Your task to perform on an android device: Search for vegetarian restaurants on Maps Image 0: 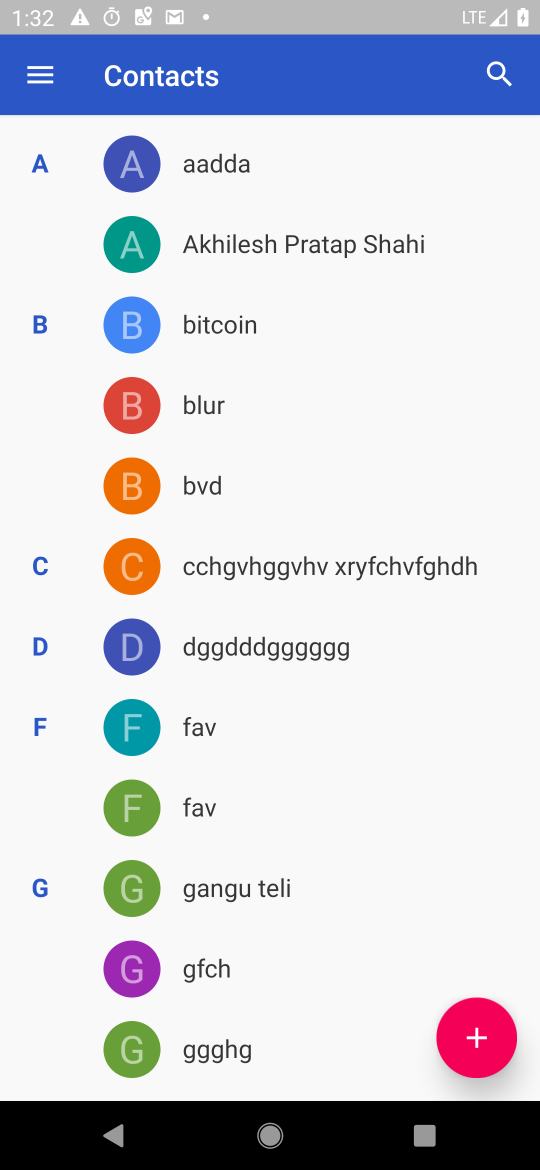
Step 0: press home button
Your task to perform on an android device: Search for vegetarian restaurants on Maps Image 1: 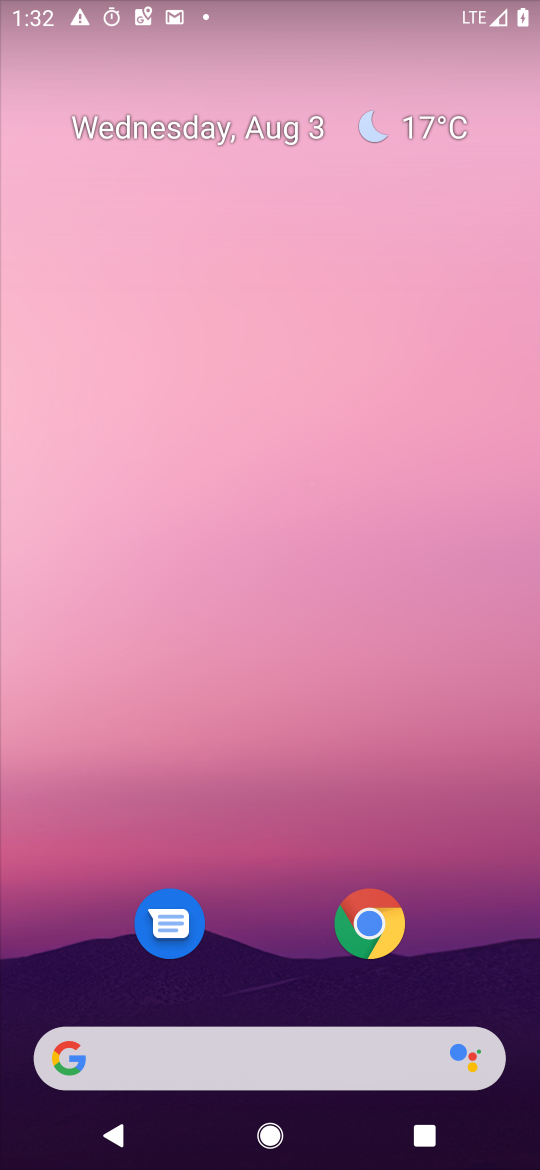
Step 1: drag from (263, 978) to (275, 445)
Your task to perform on an android device: Search for vegetarian restaurants on Maps Image 2: 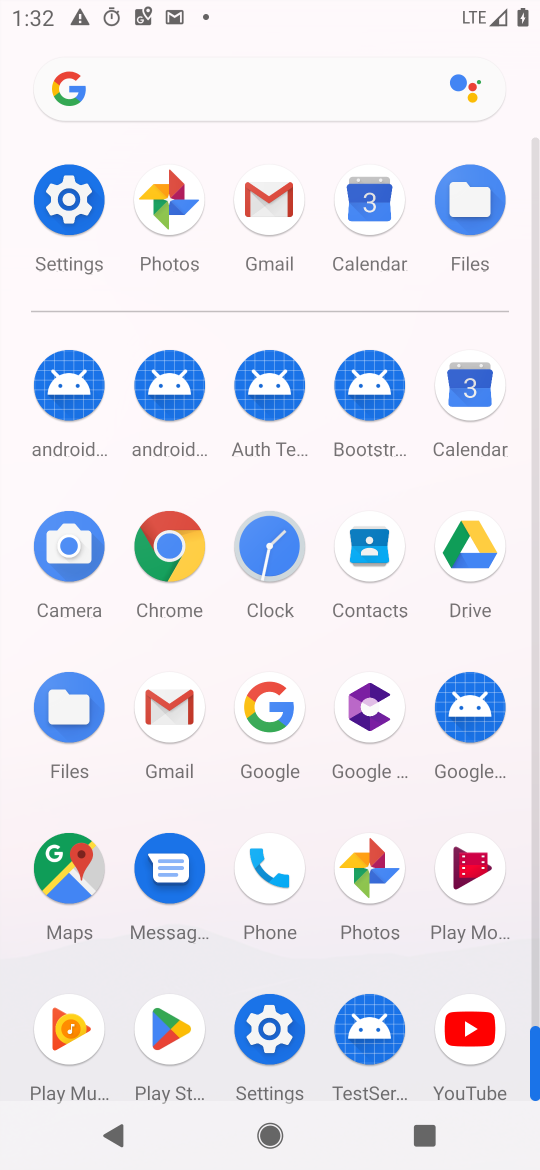
Step 2: click (89, 855)
Your task to perform on an android device: Search for vegetarian restaurants on Maps Image 3: 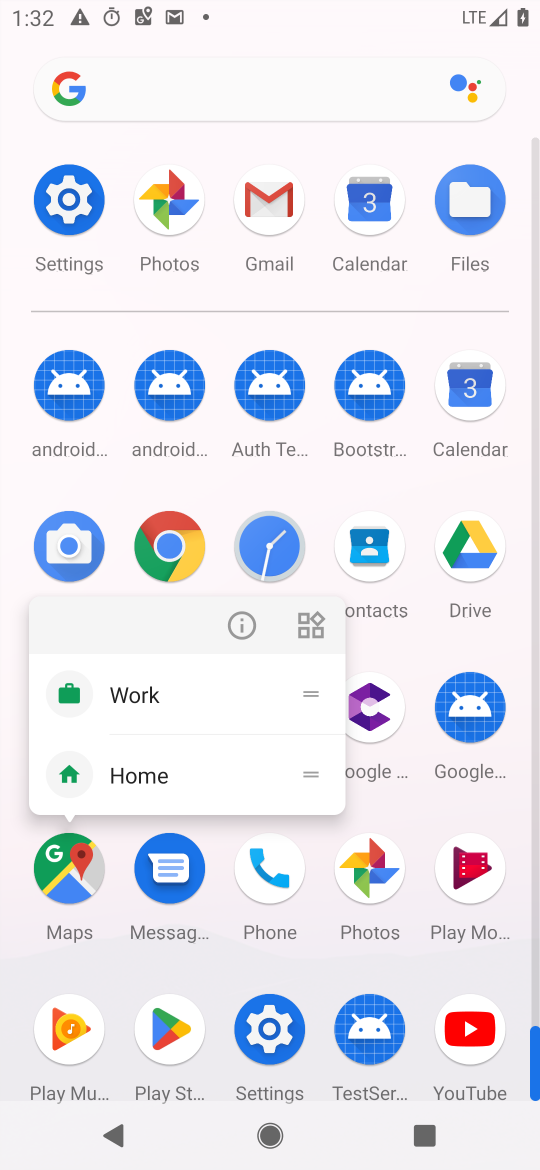
Step 3: click (226, 624)
Your task to perform on an android device: Search for vegetarian restaurants on Maps Image 4: 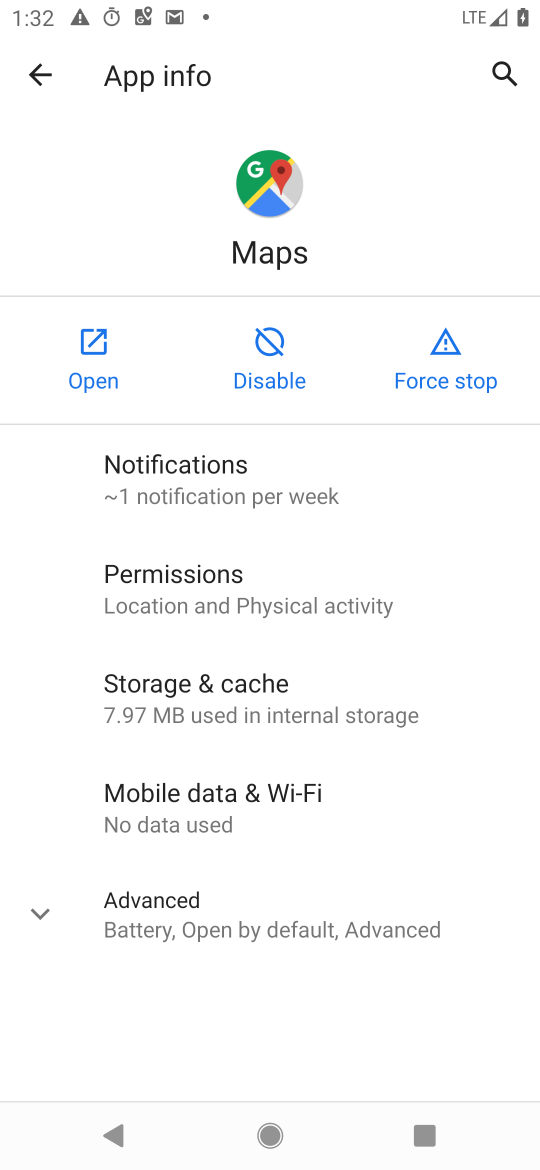
Step 4: click (119, 326)
Your task to perform on an android device: Search for vegetarian restaurants on Maps Image 5: 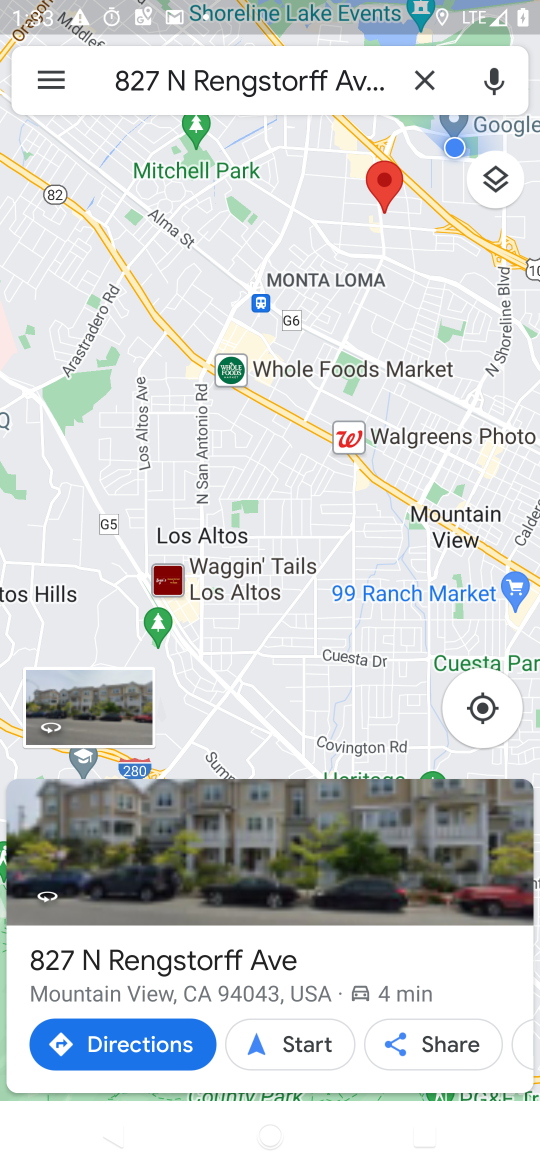
Step 5: click (417, 87)
Your task to perform on an android device: Search for vegetarian restaurants on Maps Image 6: 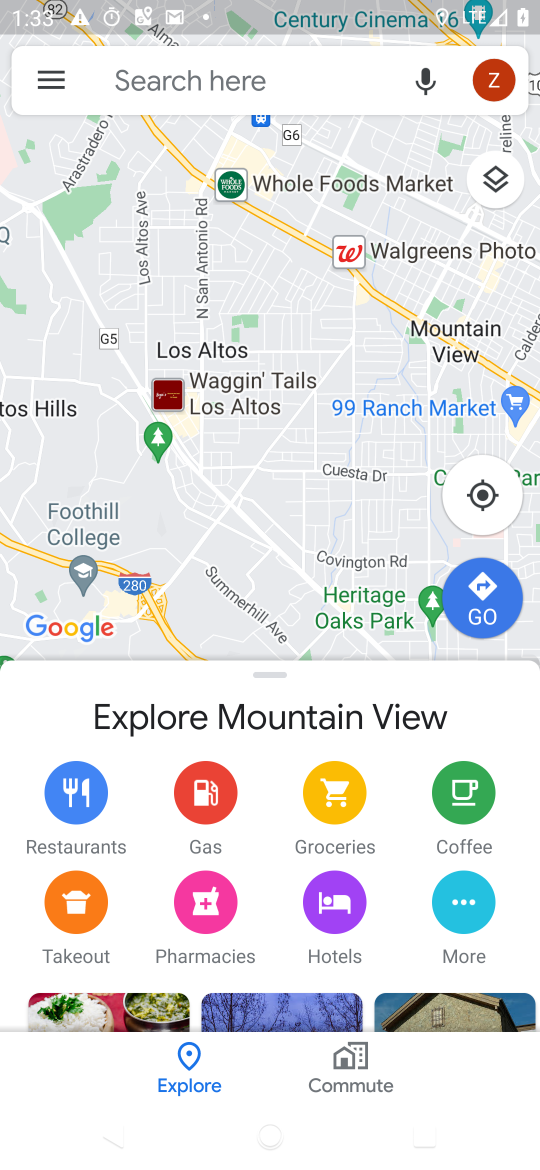
Step 6: click (220, 85)
Your task to perform on an android device: Search for vegetarian restaurants on Maps Image 7: 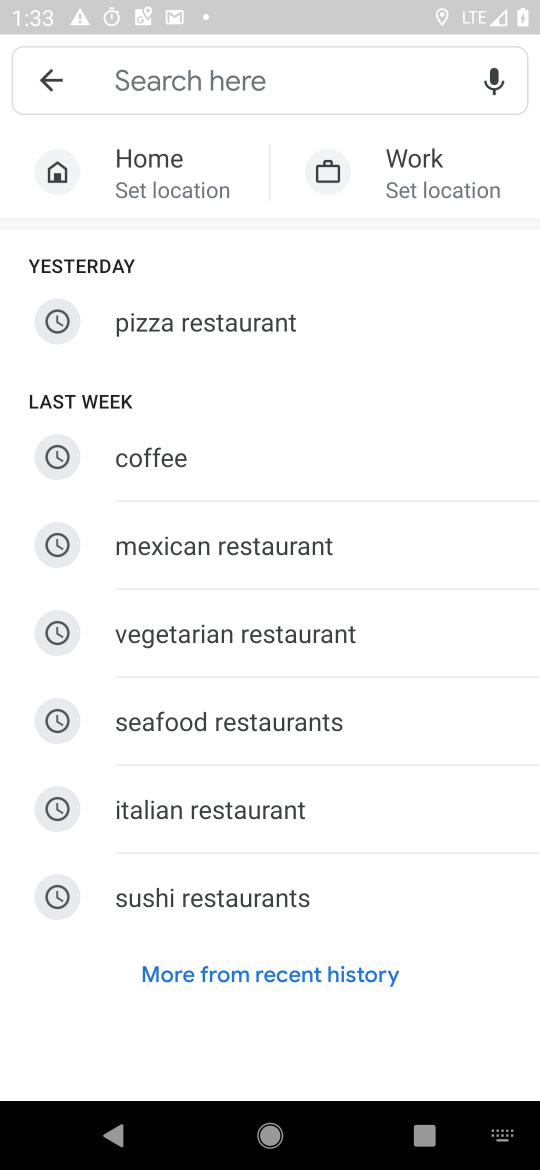
Step 7: click (177, 618)
Your task to perform on an android device: Search for vegetarian restaurants on Maps Image 8: 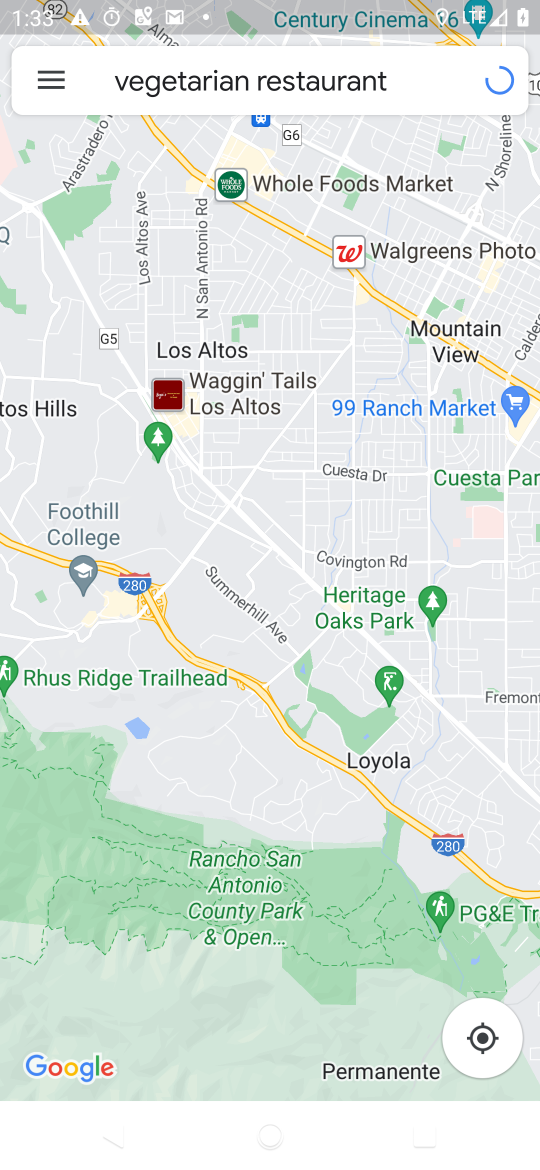
Step 8: task complete